Your task to perform on an android device: change alarm snooze length Image 0: 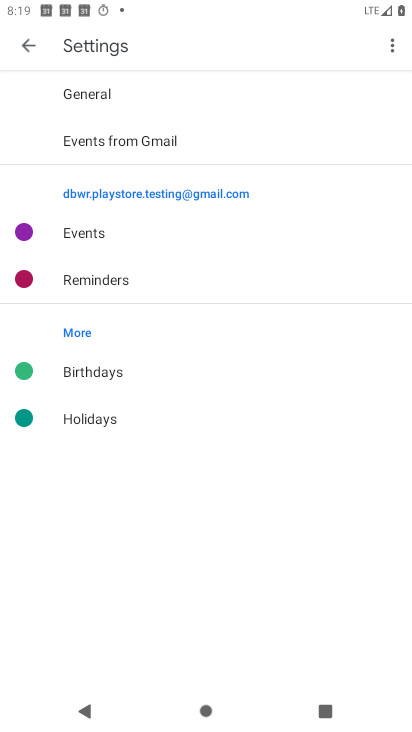
Step 0: press home button
Your task to perform on an android device: change alarm snooze length Image 1: 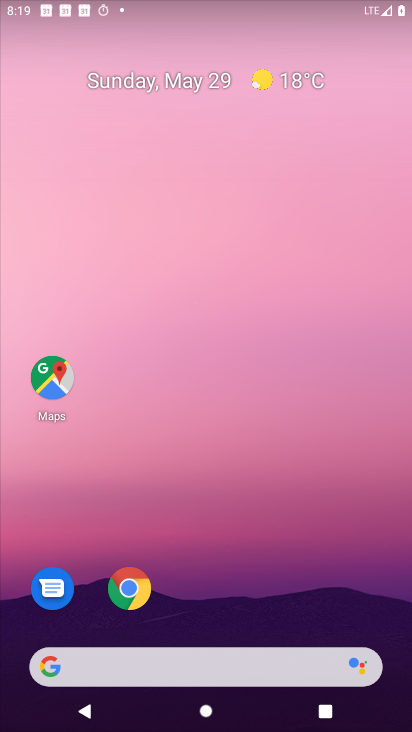
Step 1: drag from (270, 392) to (254, 101)
Your task to perform on an android device: change alarm snooze length Image 2: 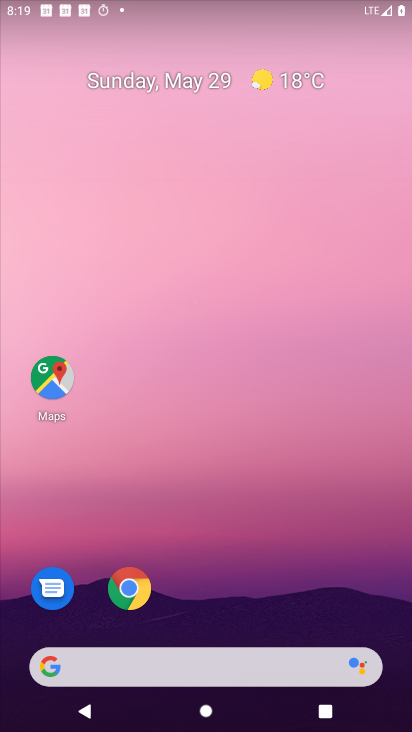
Step 2: drag from (198, 570) to (290, 9)
Your task to perform on an android device: change alarm snooze length Image 3: 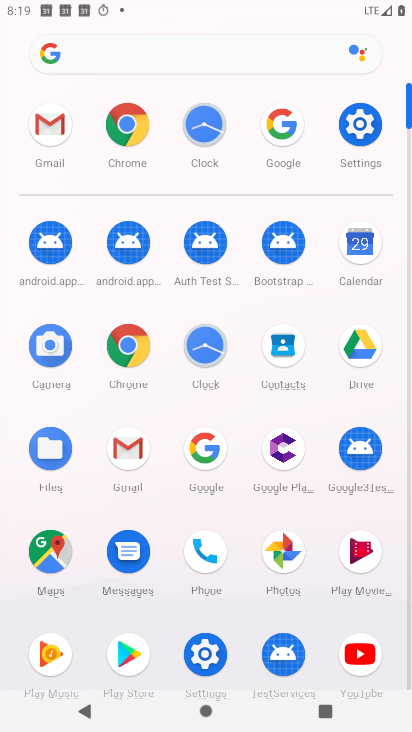
Step 3: click (206, 133)
Your task to perform on an android device: change alarm snooze length Image 4: 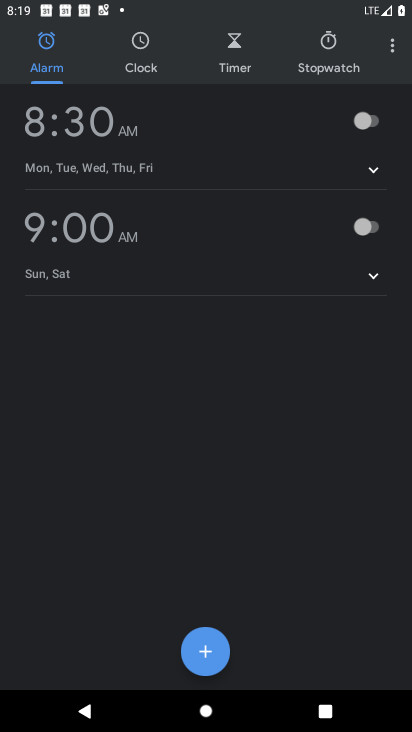
Step 4: click (384, 54)
Your task to perform on an android device: change alarm snooze length Image 5: 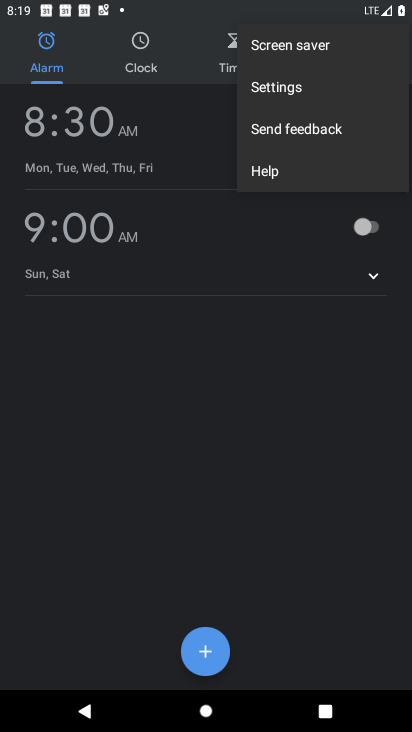
Step 5: click (274, 83)
Your task to perform on an android device: change alarm snooze length Image 6: 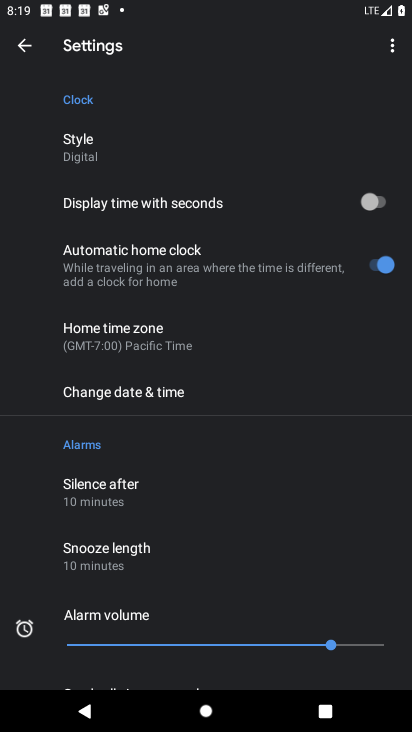
Step 6: click (127, 567)
Your task to perform on an android device: change alarm snooze length Image 7: 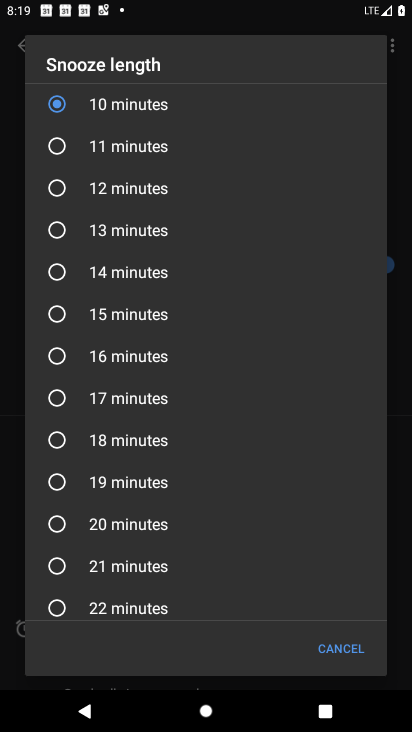
Step 7: click (57, 315)
Your task to perform on an android device: change alarm snooze length Image 8: 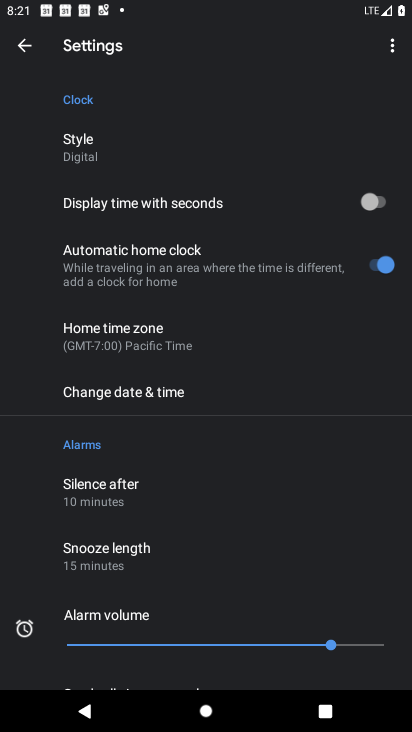
Step 8: task complete